Your task to perform on an android device: Go to location settings Image 0: 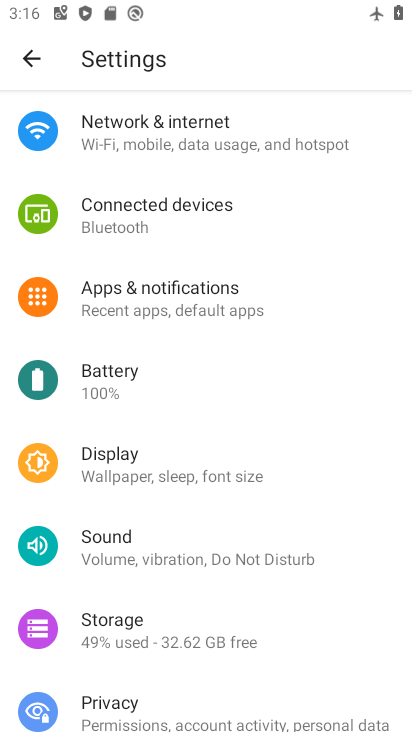
Step 0: drag from (147, 584) to (126, 118)
Your task to perform on an android device: Go to location settings Image 1: 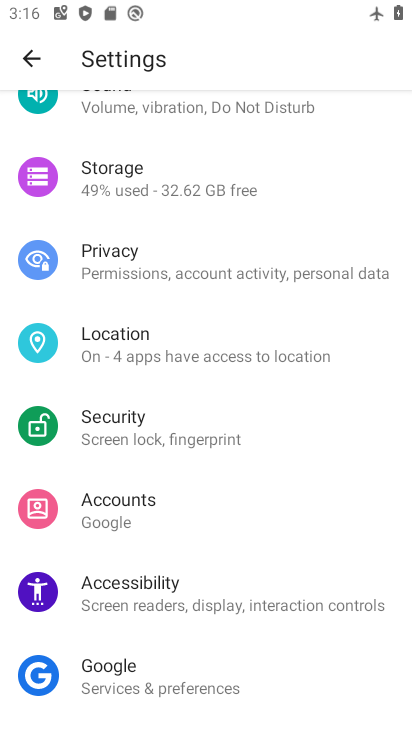
Step 1: click (119, 353)
Your task to perform on an android device: Go to location settings Image 2: 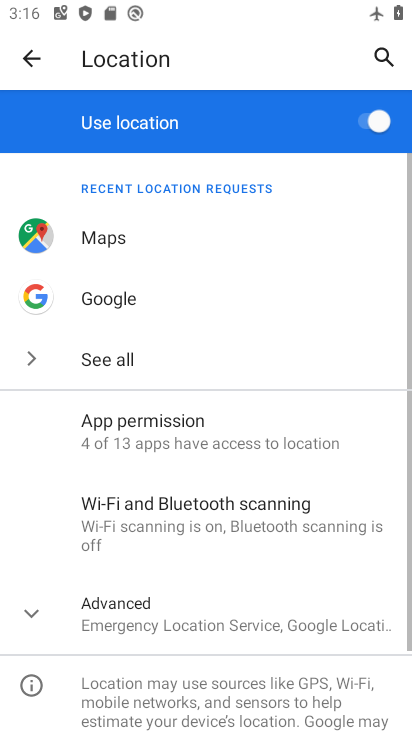
Step 2: click (87, 622)
Your task to perform on an android device: Go to location settings Image 3: 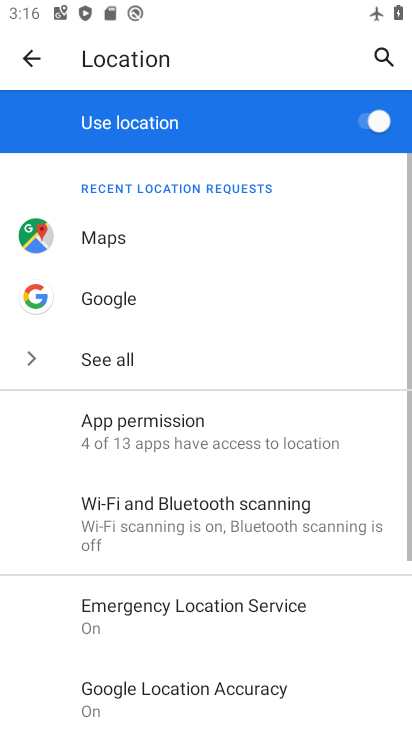
Step 3: task complete